Your task to perform on an android device: turn on improve location accuracy Image 0: 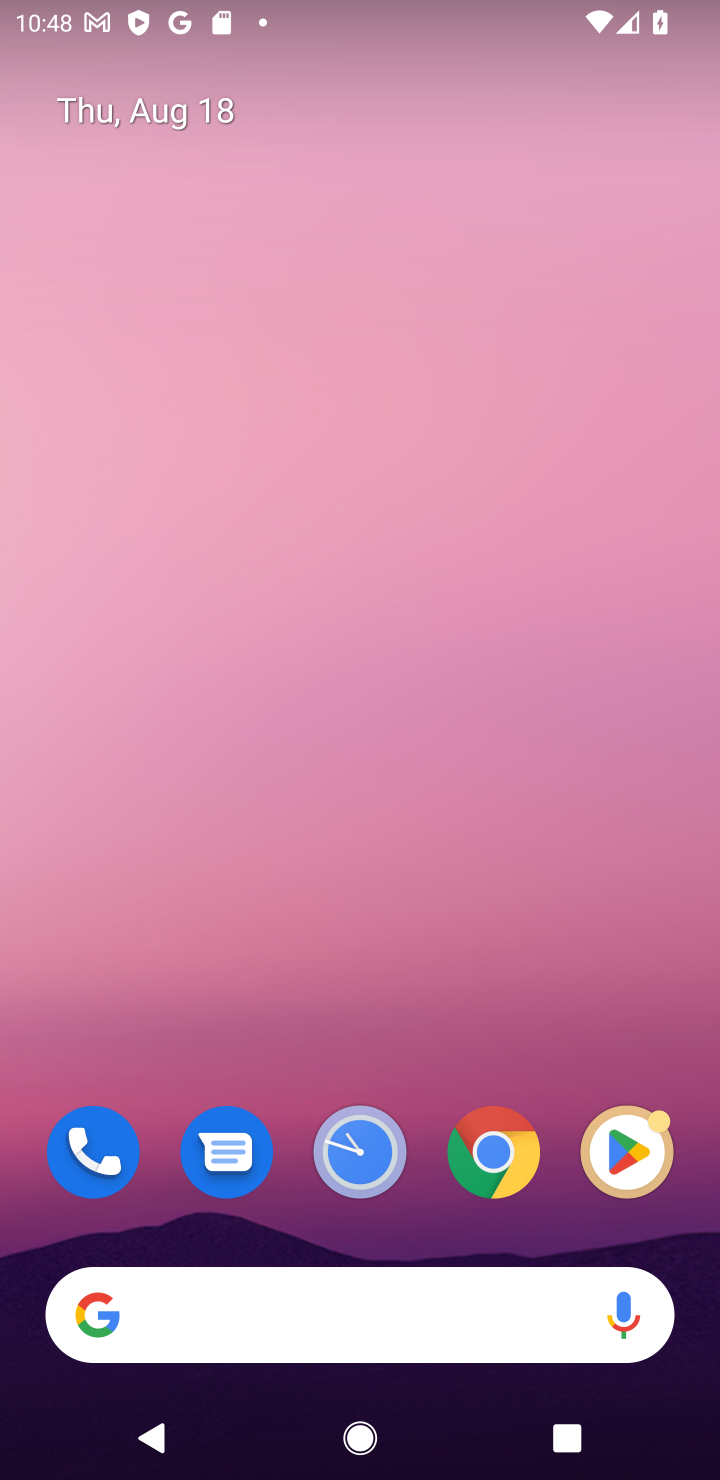
Step 0: drag from (389, 1042) to (352, 26)
Your task to perform on an android device: turn on improve location accuracy Image 1: 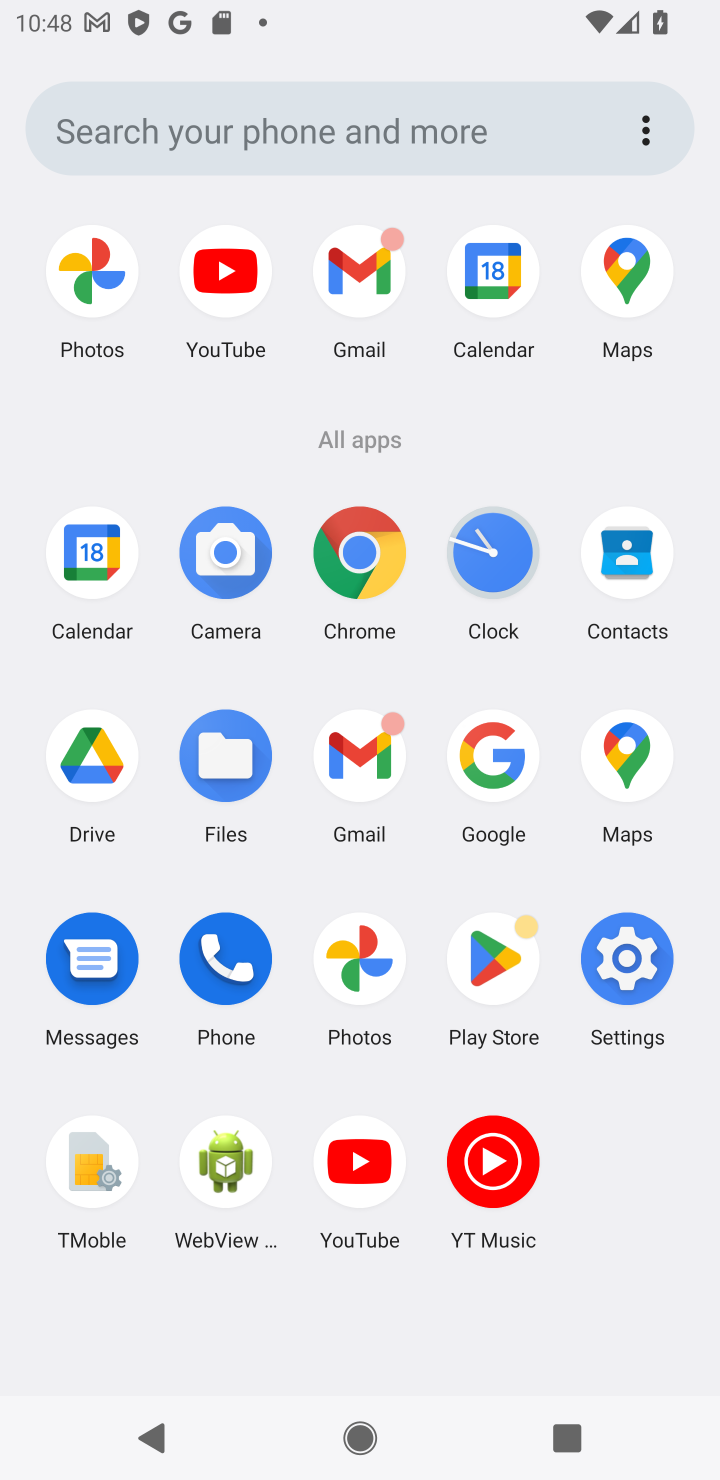
Step 1: click (630, 953)
Your task to perform on an android device: turn on improve location accuracy Image 2: 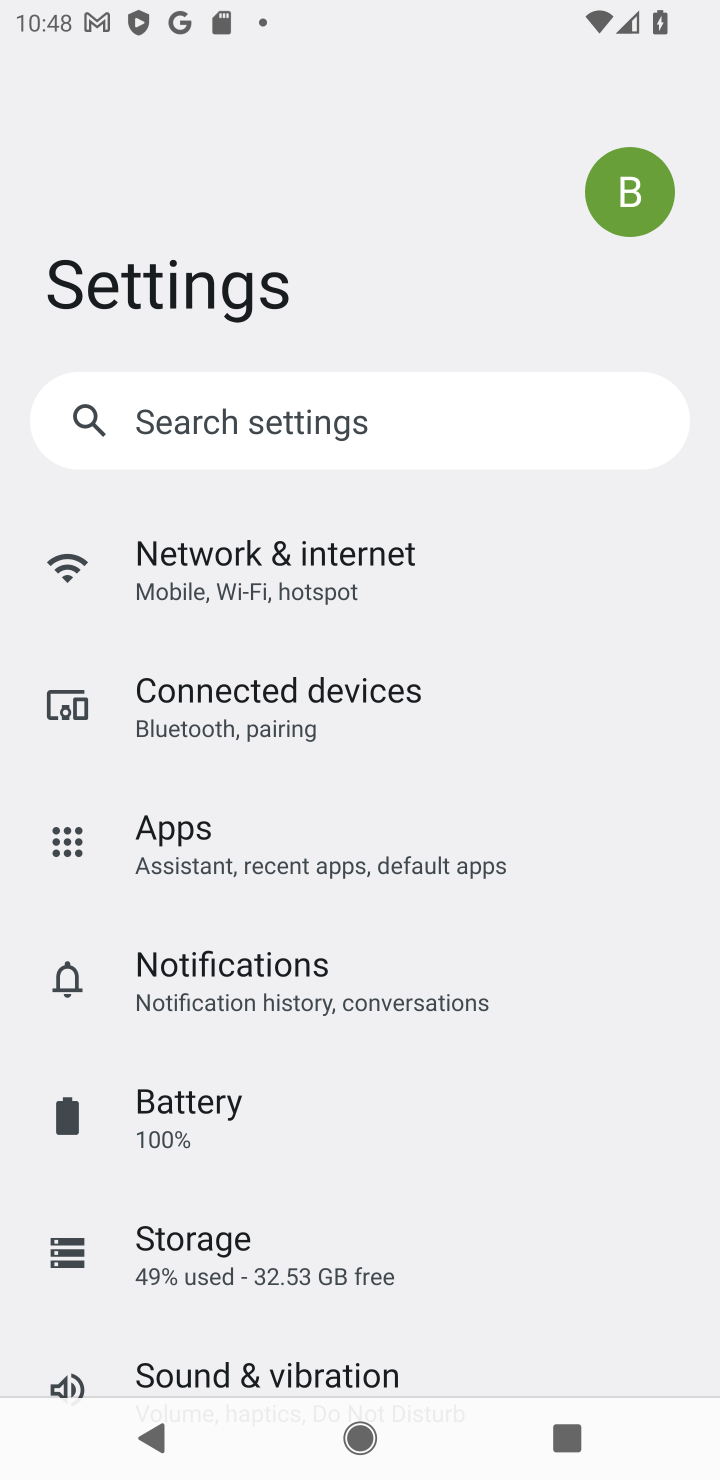
Step 2: drag from (488, 1054) to (406, 357)
Your task to perform on an android device: turn on improve location accuracy Image 3: 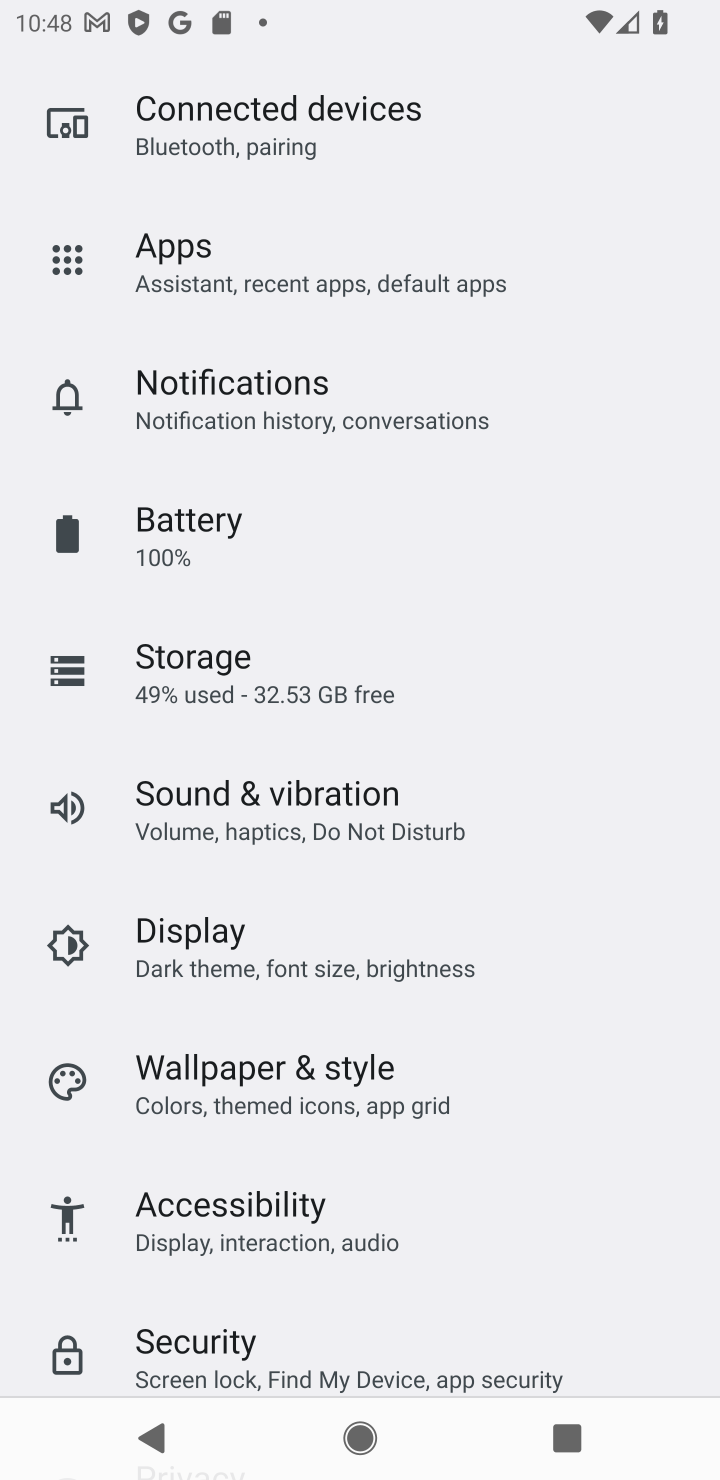
Step 3: drag from (311, 1085) to (280, 240)
Your task to perform on an android device: turn on improve location accuracy Image 4: 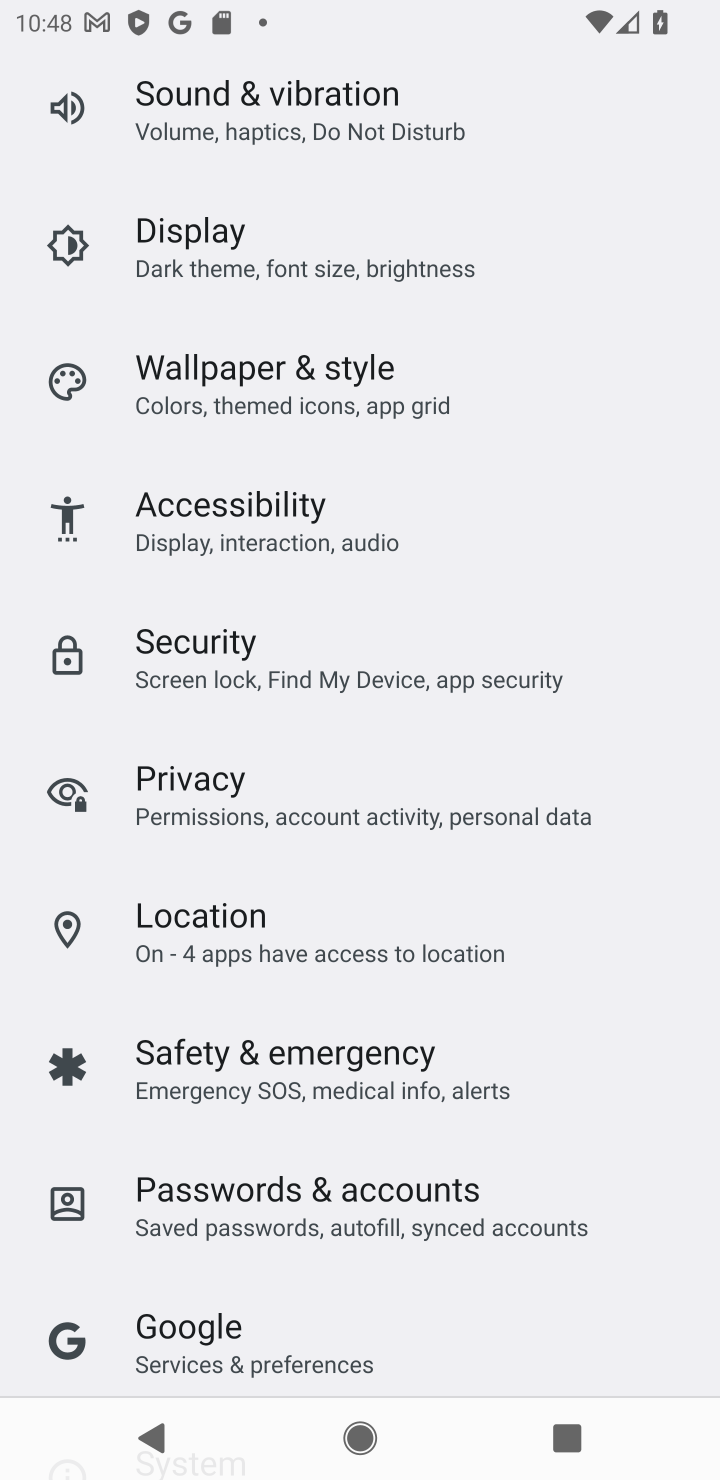
Step 4: click (212, 932)
Your task to perform on an android device: turn on improve location accuracy Image 5: 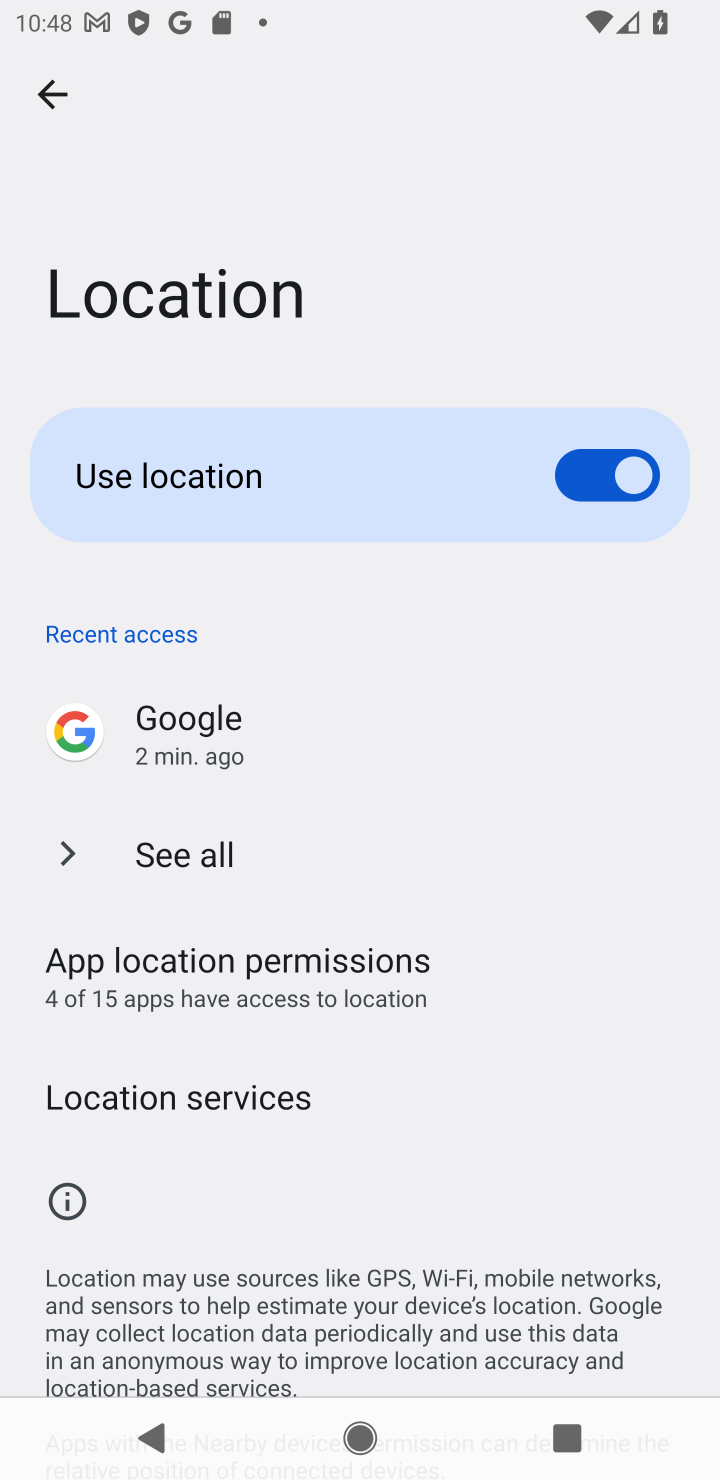
Step 5: task complete